Your task to perform on an android device: change notifications settings Image 0: 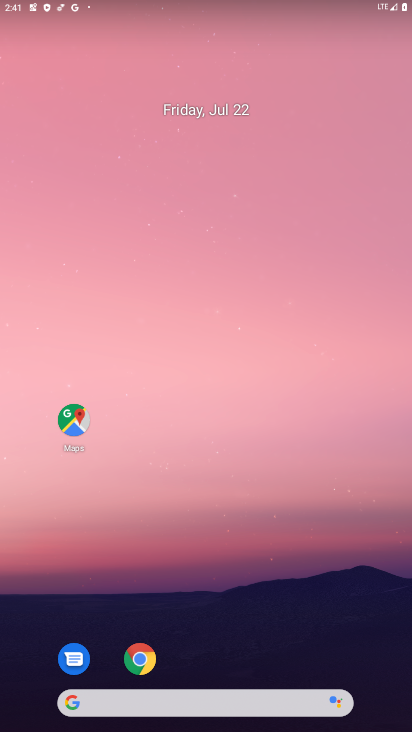
Step 0: drag from (190, 565) to (134, 0)
Your task to perform on an android device: change notifications settings Image 1: 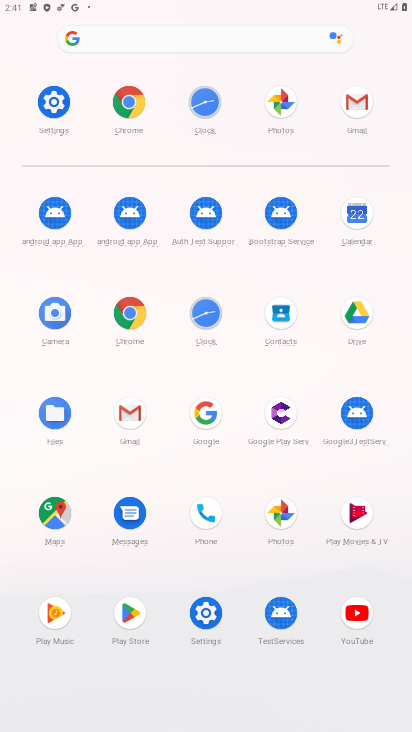
Step 1: click (57, 110)
Your task to perform on an android device: change notifications settings Image 2: 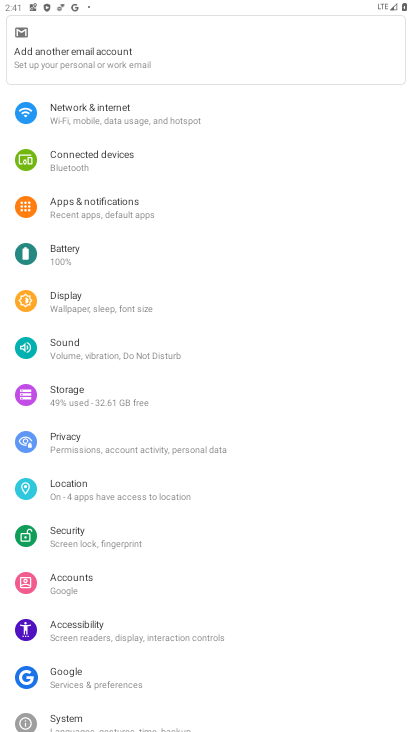
Step 2: click (95, 199)
Your task to perform on an android device: change notifications settings Image 3: 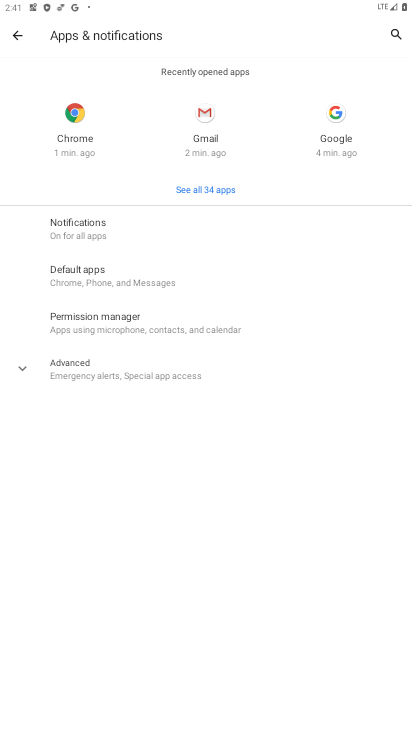
Step 3: click (75, 230)
Your task to perform on an android device: change notifications settings Image 4: 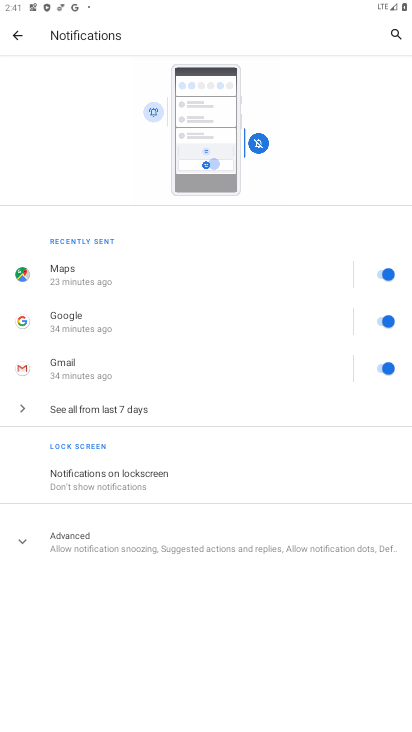
Step 4: click (76, 494)
Your task to perform on an android device: change notifications settings Image 5: 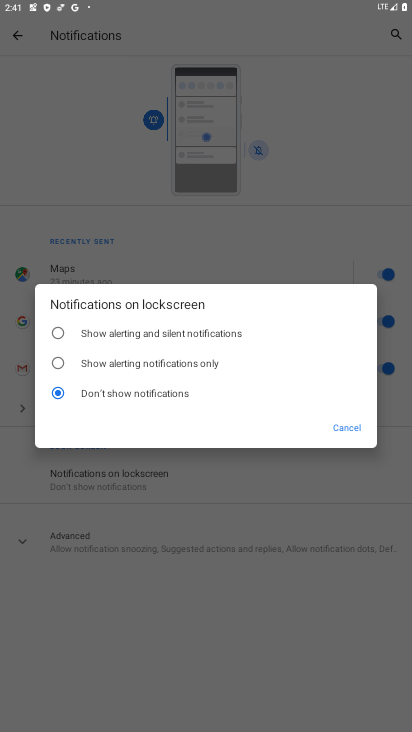
Step 5: click (54, 332)
Your task to perform on an android device: change notifications settings Image 6: 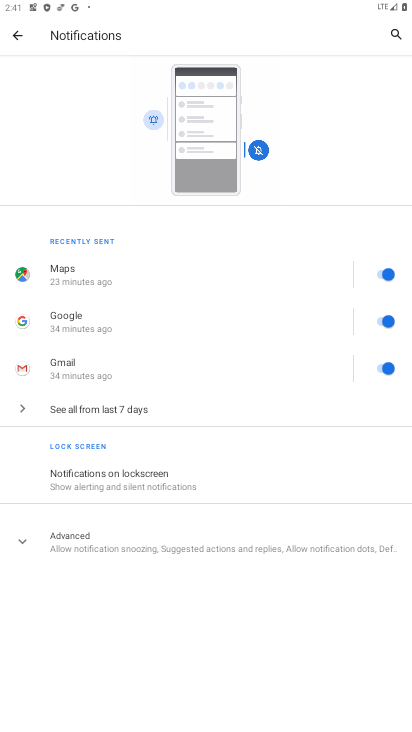
Step 6: task complete